Your task to perform on an android device: How much does a 2 bedroom apartment rent for in New York? Image 0: 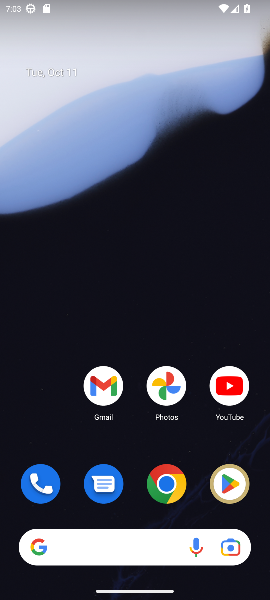
Step 0: click (167, 486)
Your task to perform on an android device: How much does a 2 bedroom apartment rent for in New York? Image 1: 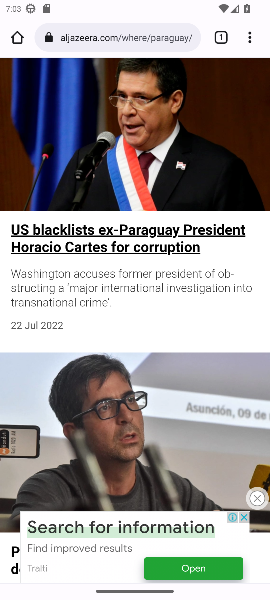
Step 1: click (147, 43)
Your task to perform on an android device: How much does a 2 bedroom apartment rent for in New York? Image 2: 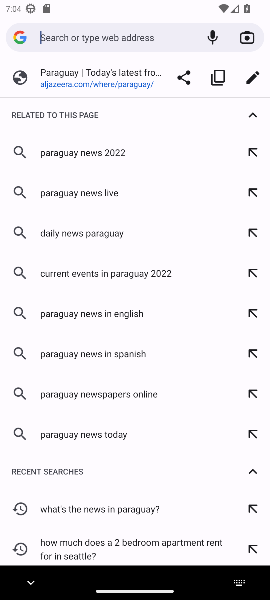
Step 2: type "How much does a 2 bedroom apartment rent for in New York?"
Your task to perform on an android device: How much does a 2 bedroom apartment rent for in New York? Image 3: 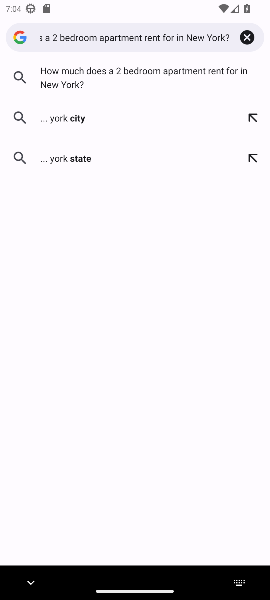
Step 3: click (92, 73)
Your task to perform on an android device: How much does a 2 bedroom apartment rent for in New York? Image 4: 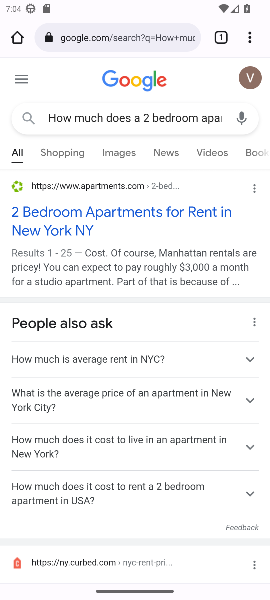
Step 4: click (118, 207)
Your task to perform on an android device: How much does a 2 bedroom apartment rent for in New York? Image 5: 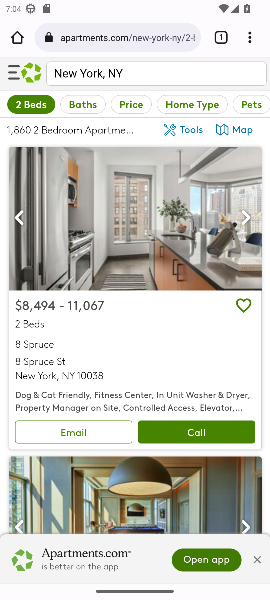
Step 5: task complete